Your task to perform on an android device: check the backup settings in the google photos Image 0: 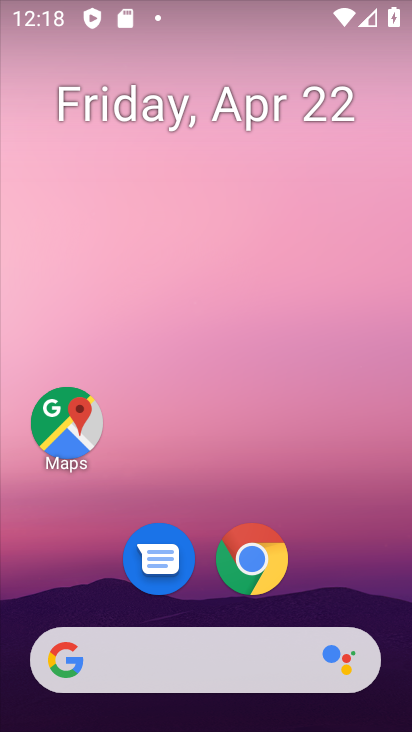
Step 0: drag from (348, 567) to (373, 92)
Your task to perform on an android device: check the backup settings in the google photos Image 1: 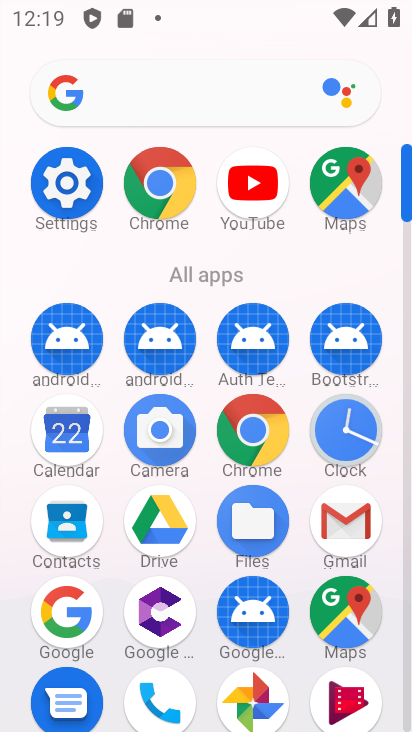
Step 1: drag from (392, 572) to (393, 284)
Your task to perform on an android device: check the backup settings in the google photos Image 2: 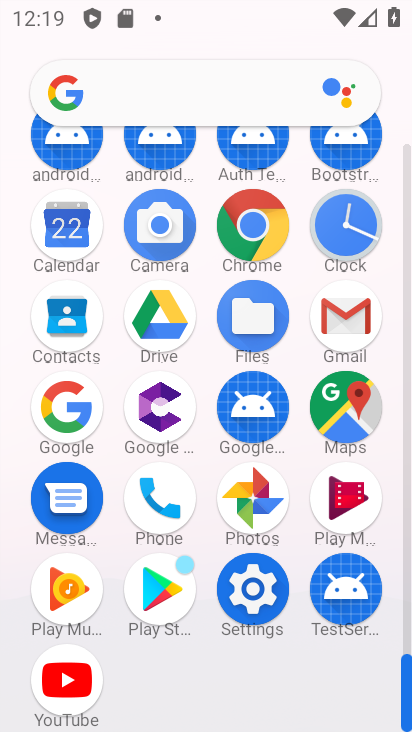
Step 2: click (241, 503)
Your task to perform on an android device: check the backup settings in the google photos Image 3: 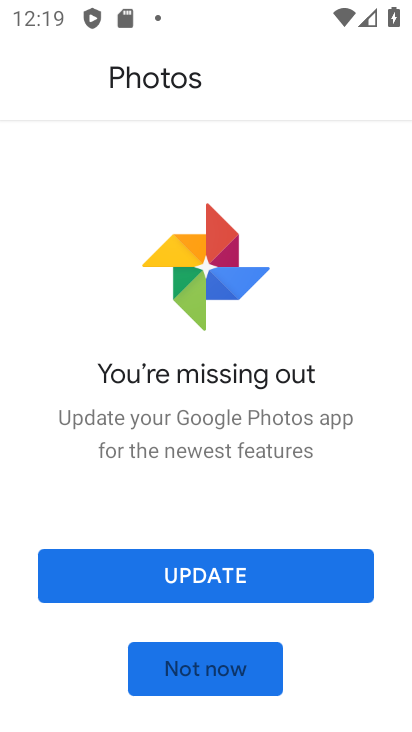
Step 3: click (305, 565)
Your task to perform on an android device: check the backup settings in the google photos Image 4: 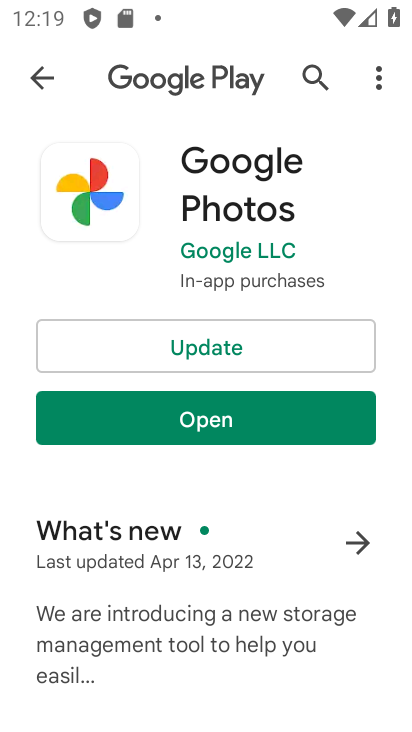
Step 4: click (275, 338)
Your task to perform on an android device: check the backup settings in the google photos Image 5: 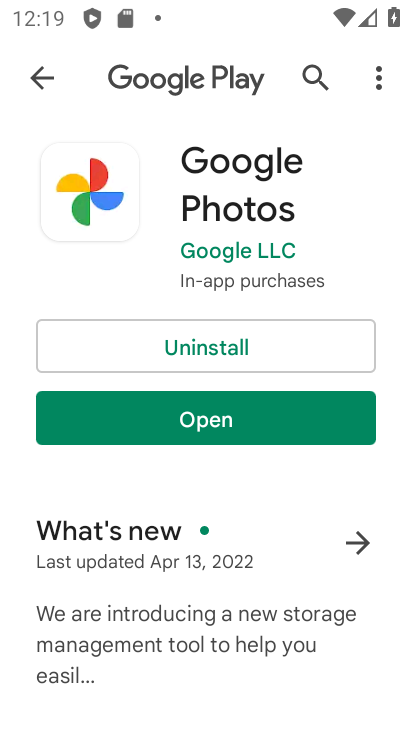
Step 5: click (309, 422)
Your task to perform on an android device: check the backup settings in the google photos Image 6: 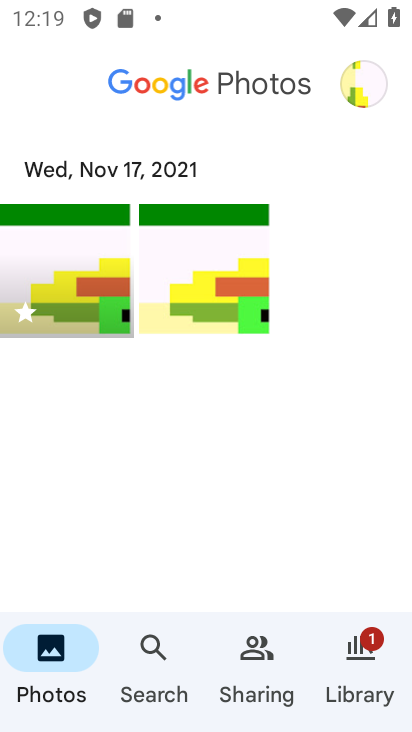
Step 6: click (362, 94)
Your task to perform on an android device: check the backup settings in the google photos Image 7: 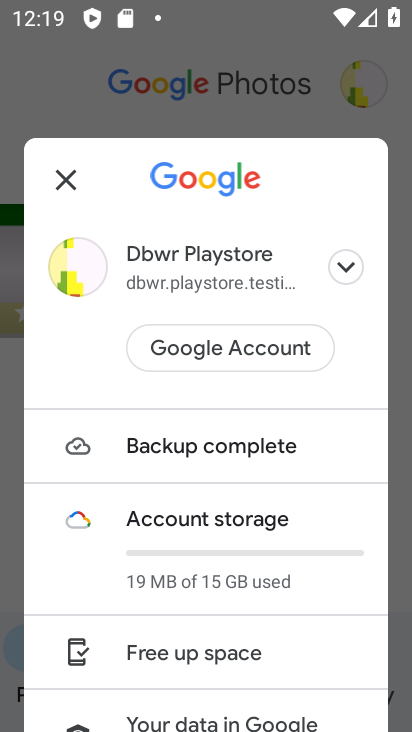
Step 7: drag from (336, 599) to (341, 360)
Your task to perform on an android device: check the backup settings in the google photos Image 8: 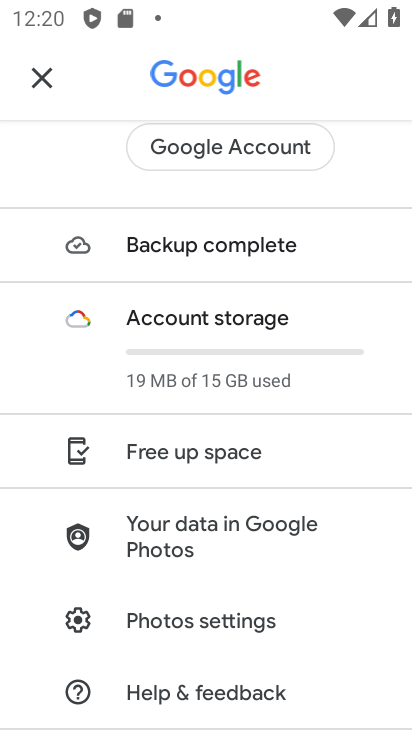
Step 8: drag from (327, 632) to (339, 437)
Your task to perform on an android device: check the backup settings in the google photos Image 9: 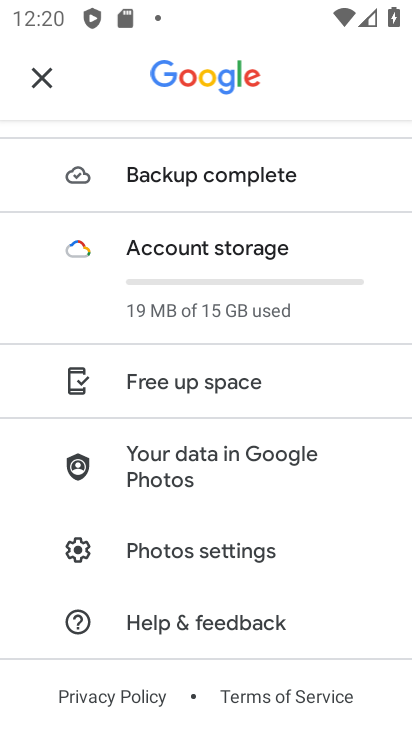
Step 9: click (261, 555)
Your task to perform on an android device: check the backup settings in the google photos Image 10: 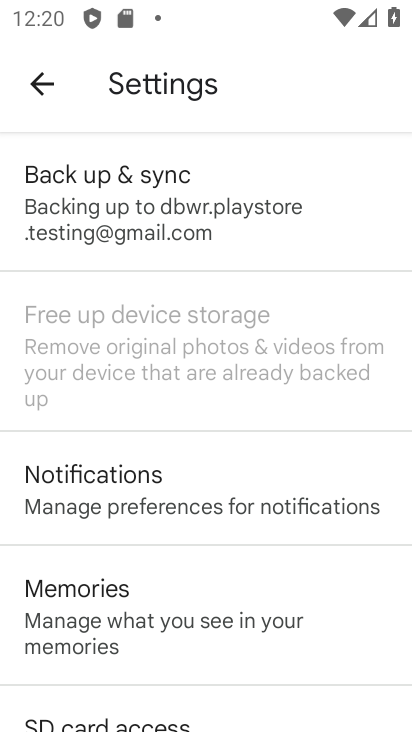
Step 10: click (224, 219)
Your task to perform on an android device: check the backup settings in the google photos Image 11: 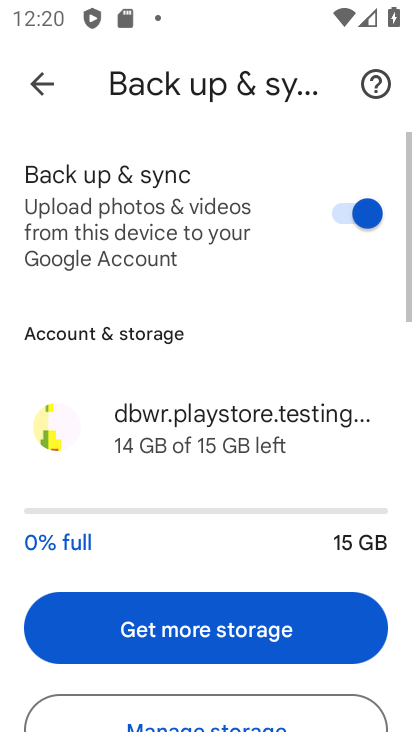
Step 11: task complete